Your task to perform on an android device: all mails in gmail Image 0: 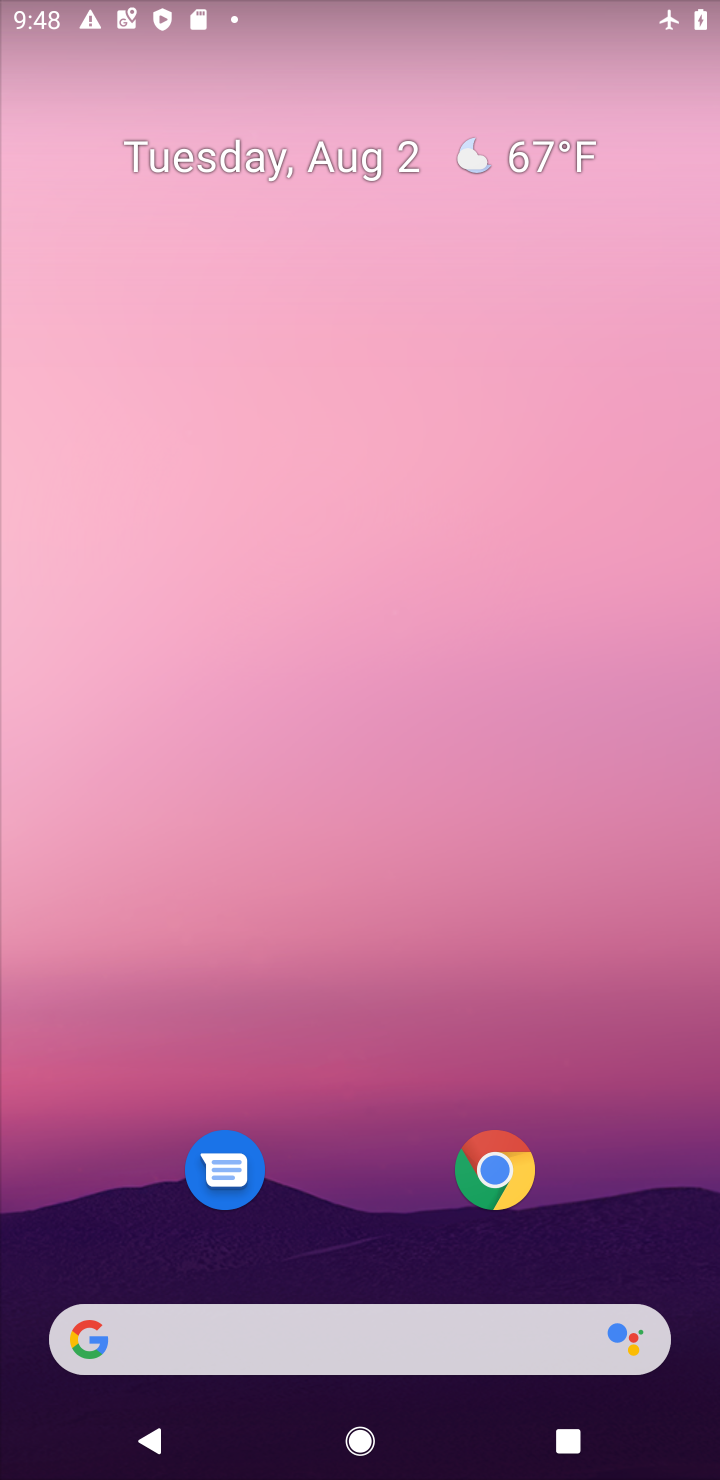
Step 0: drag from (311, 657) to (473, 101)
Your task to perform on an android device: all mails in gmail Image 1: 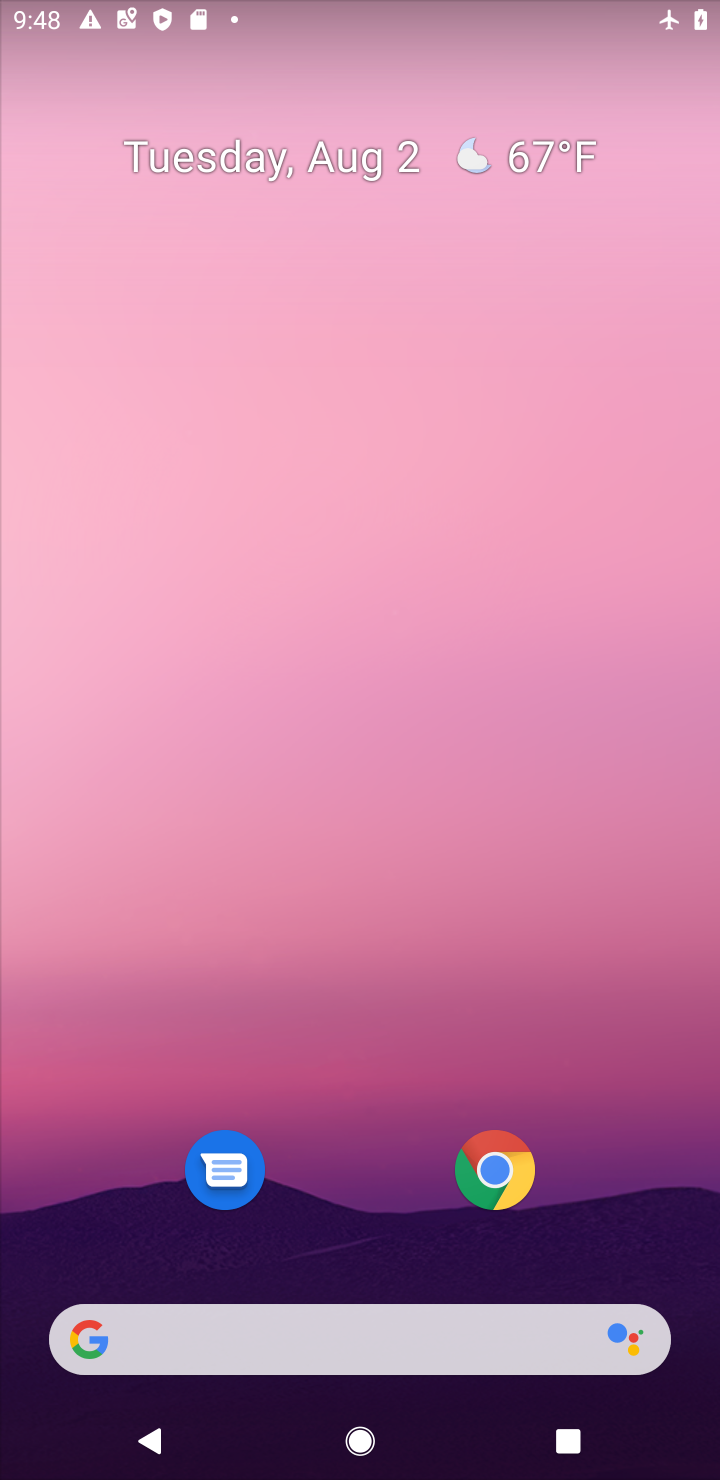
Step 1: drag from (330, 1128) to (438, 214)
Your task to perform on an android device: all mails in gmail Image 2: 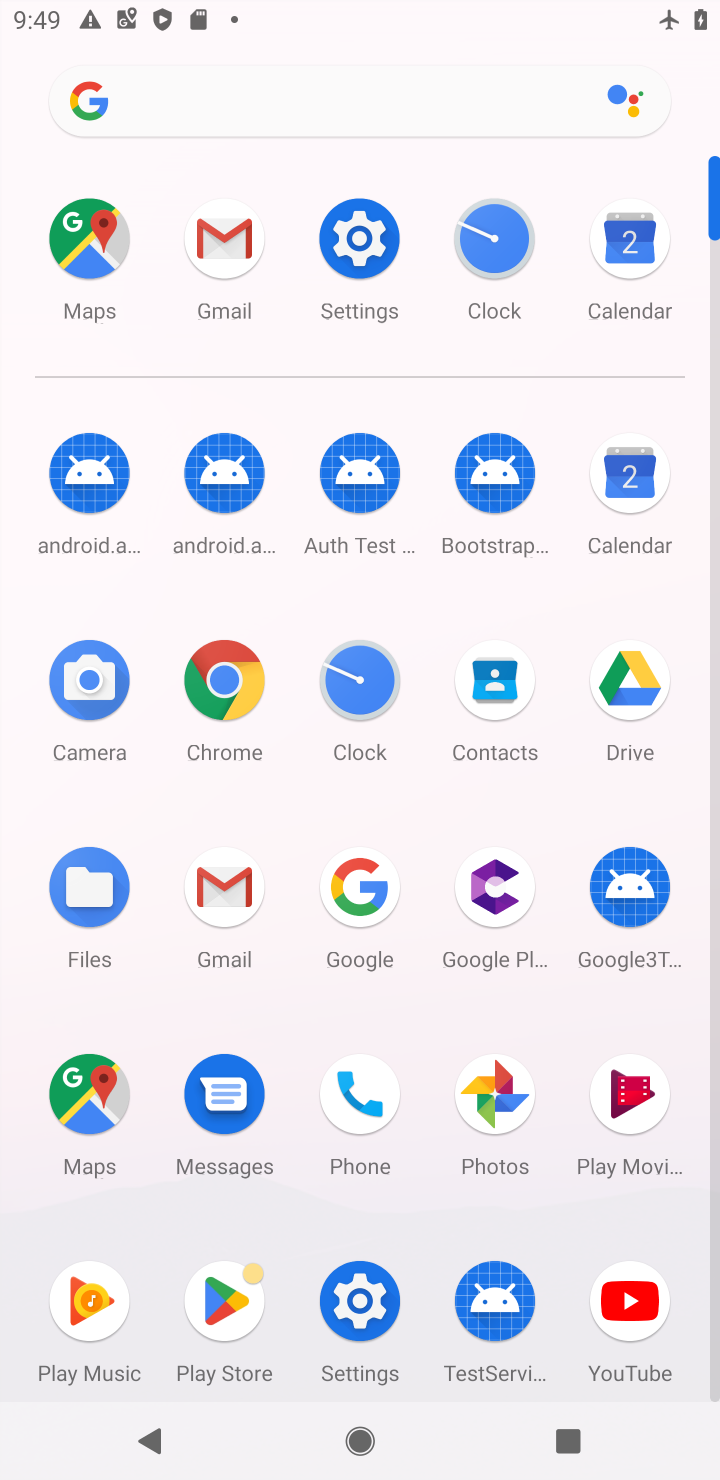
Step 2: click (226, 256)
Your task to perform on an android device: all mails in gmail Image 3: 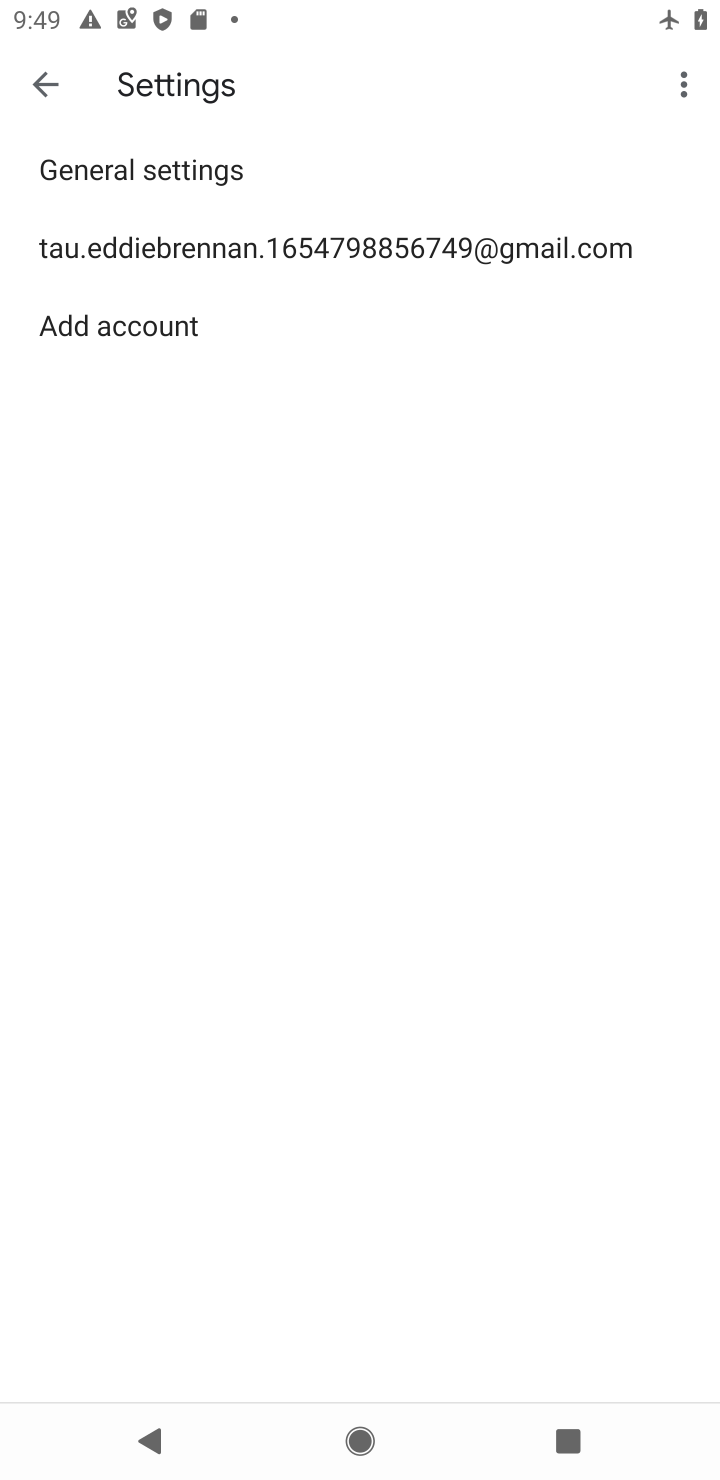
Step 3: click (40, 80)
Your task to perform on an android device: all mails in gmail Image 4: 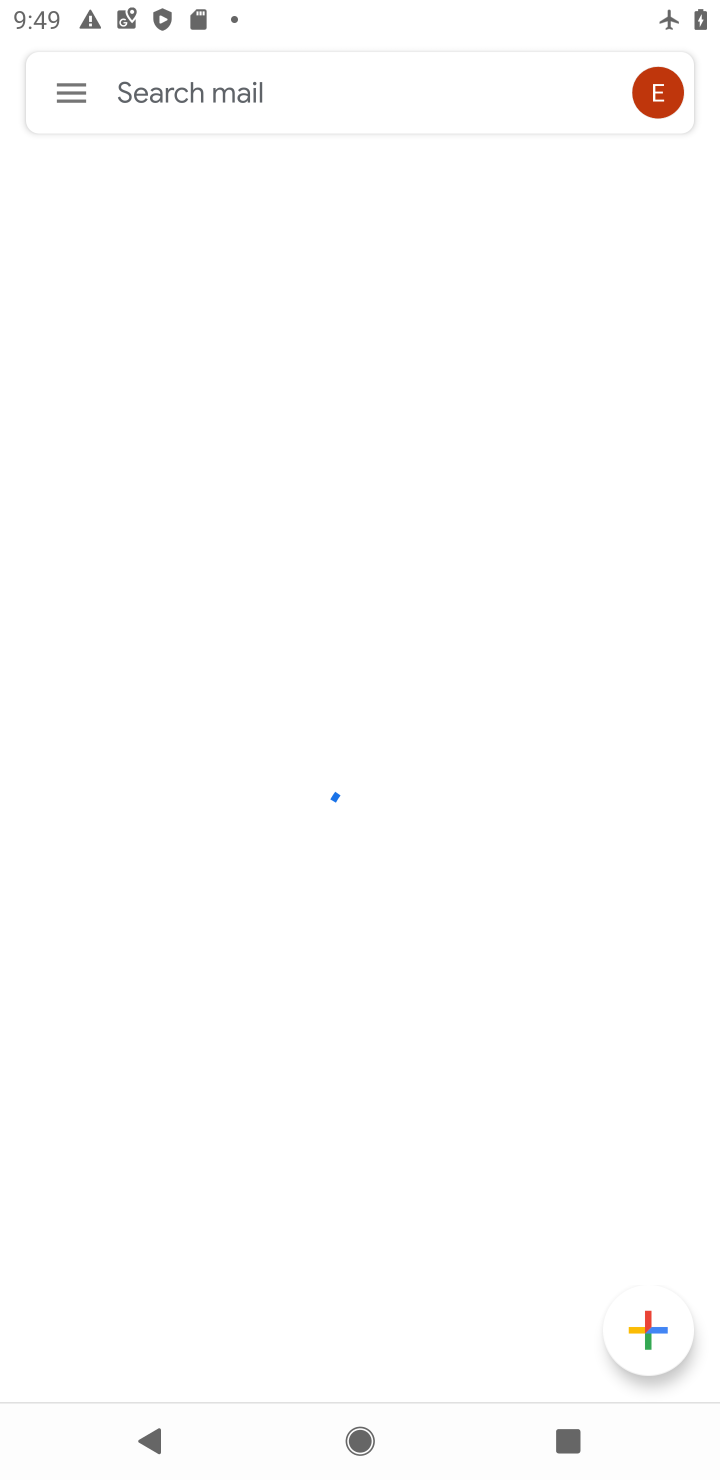
Step 4: click (74, 97)
Your task to perform on an android device: all mails in gmail Image 5: 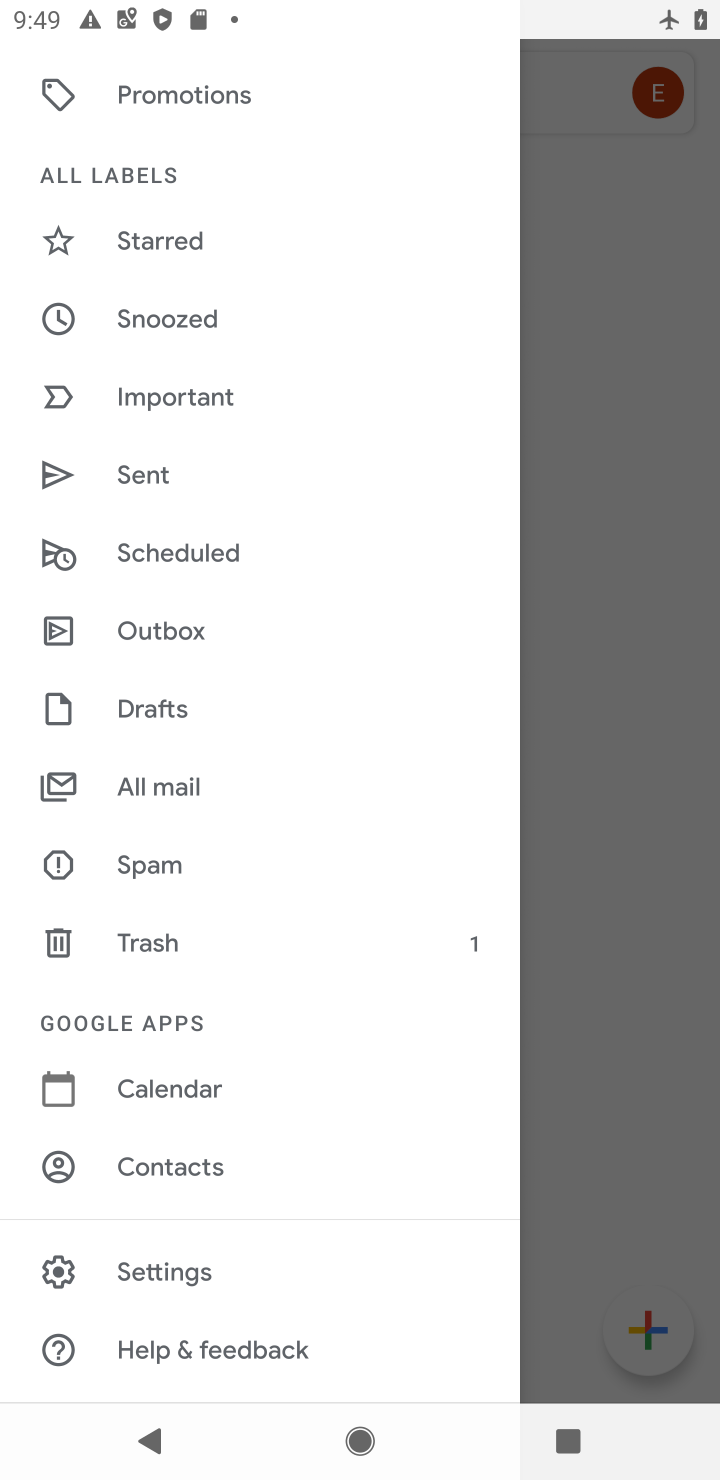
Step 5: click (163, 790)
Your task to perform on an android device: all mails in gmail Image 6: 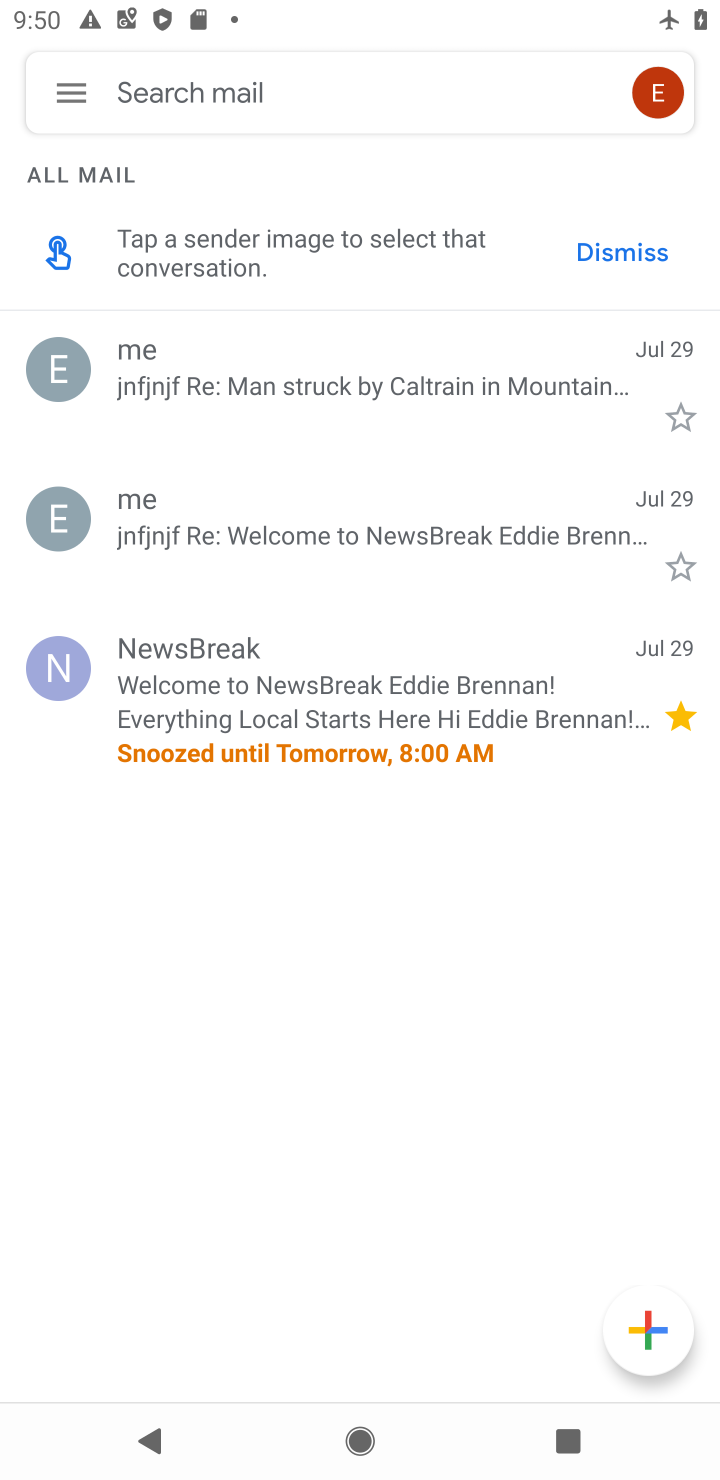
Step 6: task complete